Your task to perform on an android device: open a new tab in the chrome app Image 0: 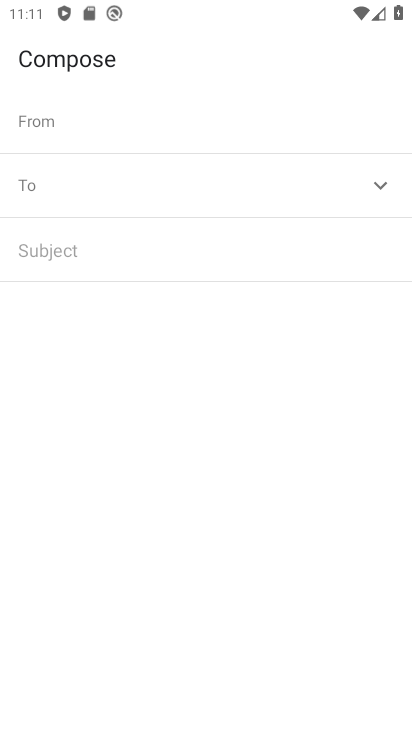
Step 0: drag from (211, 529) to (324, 26)
Your task to perform on an android device: open a new tab in the chrome app Image 1: 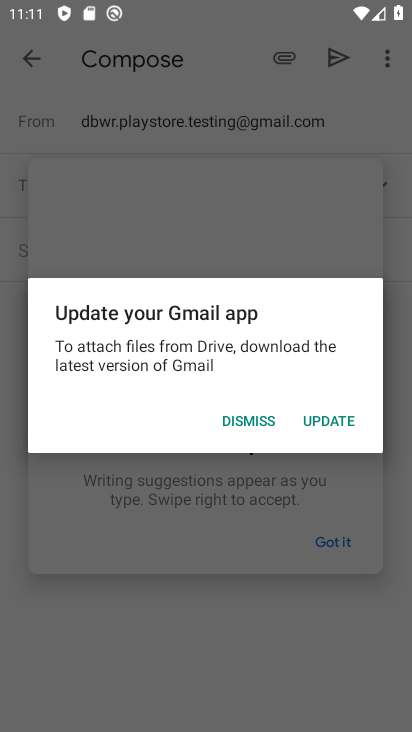
Step 1: press home button
Your task to perform on an android device: open a new tab in the chrome app Image 2: 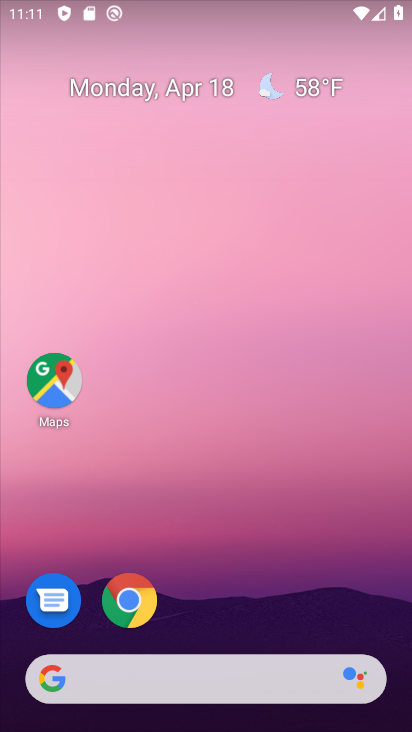
Step 2: click (125, 602)
Your task to perform on an android device: open a new tab in the chrome app Image 3: 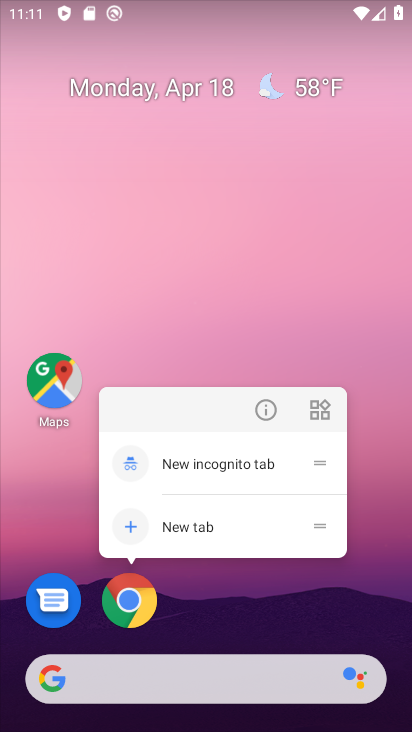
Step 3: click (128, 600)
Your task to perform on an android device: open a new tab in the chrome app Image 4: 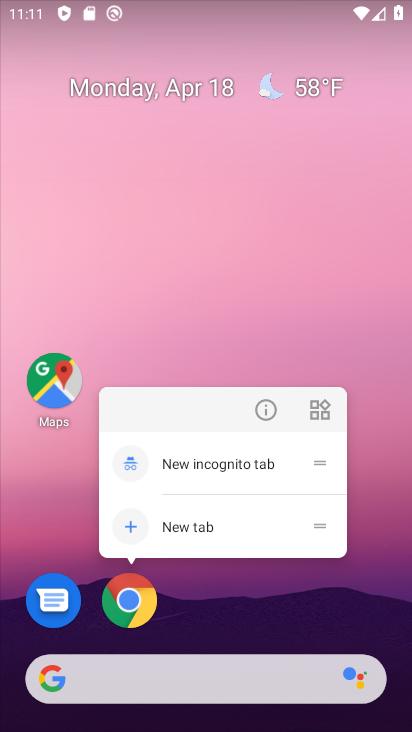
Step 4: click (128, 599)
Your task to perform on an android device: open a new tab in the chrome app Image 5: 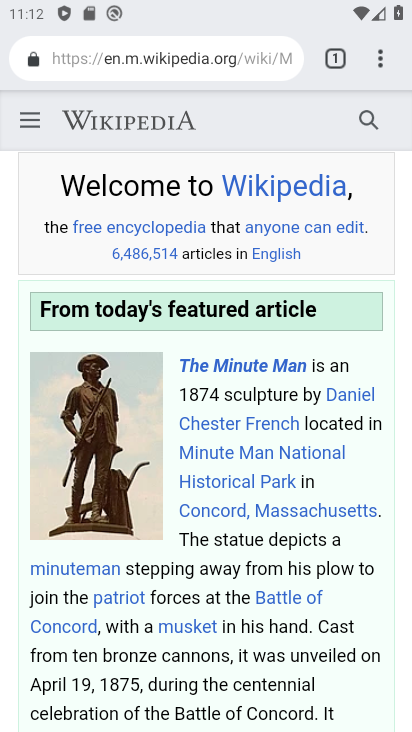
Step 5: click (344, 50)
Your task to perform on an android device: open a new tab in the chrome app Image 6: 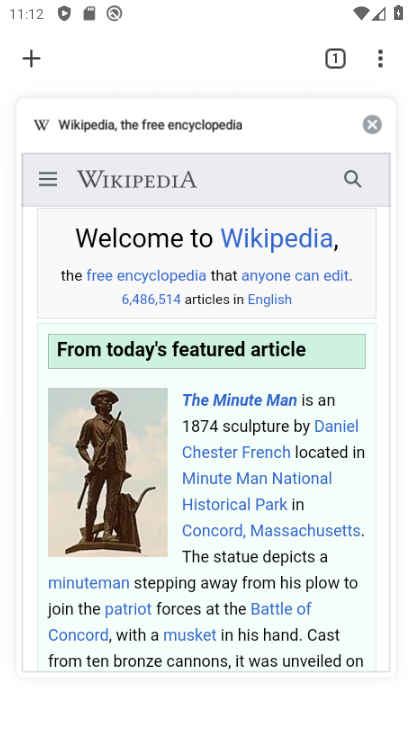
Step 6: click (36, 59)
Your task to perform on an android device: open a new tab in the chrome app Image 7: 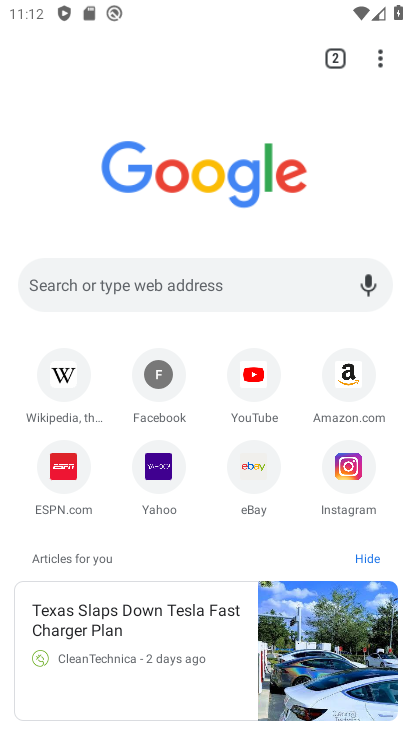
Step 7: task complete